Your task to perform on an android device: Open location settings Image 0: 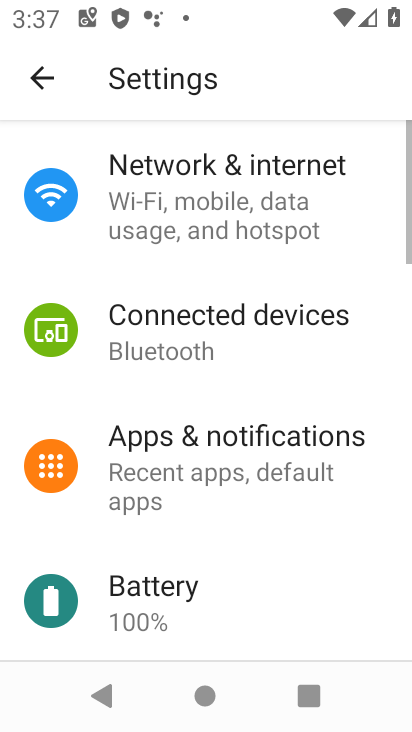
Step 0: drag from (230, 525) to (269, 210)
Your task to perform on an android device: Open location settings Image 1: 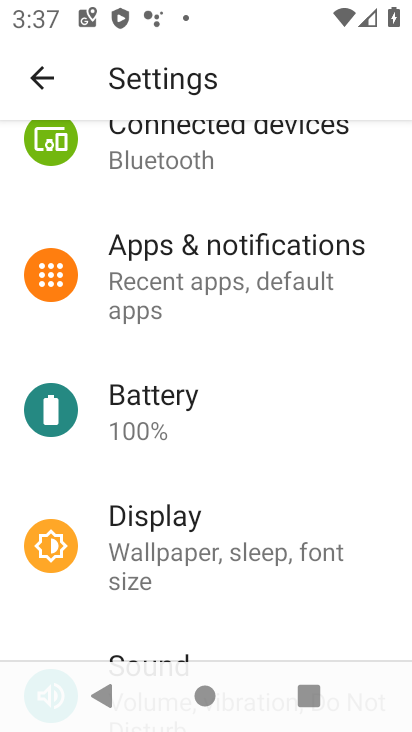
Step 1: task complete